Your task to perform on an android device: change timer sound Image 0: 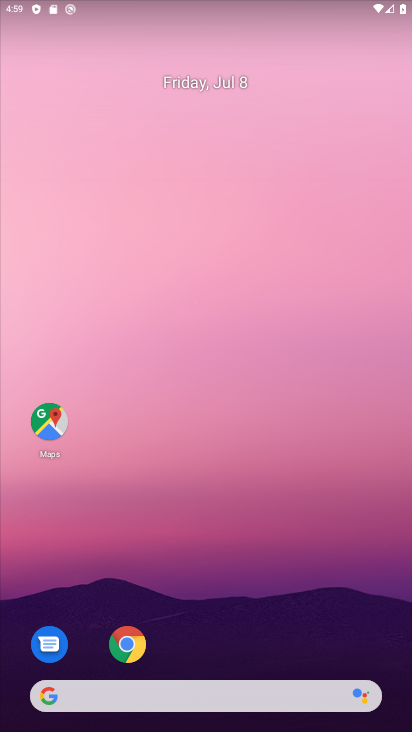
Step 0: press home button
Your task to perform on an android device: change timer sound Image 1: 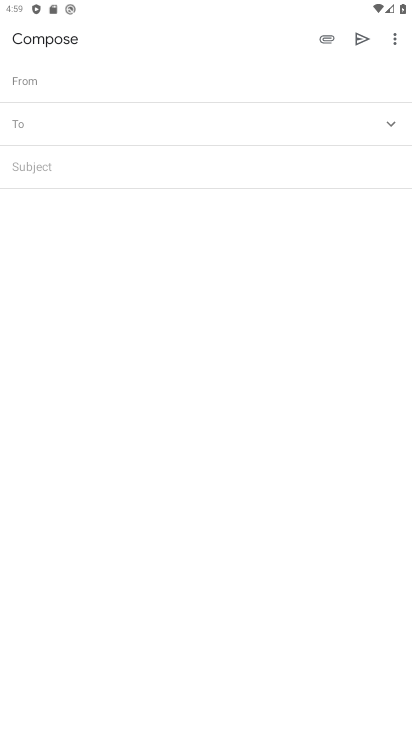
Step 1: click (259, 93)
Your task to perform on an android device: change timer sound Image 2: 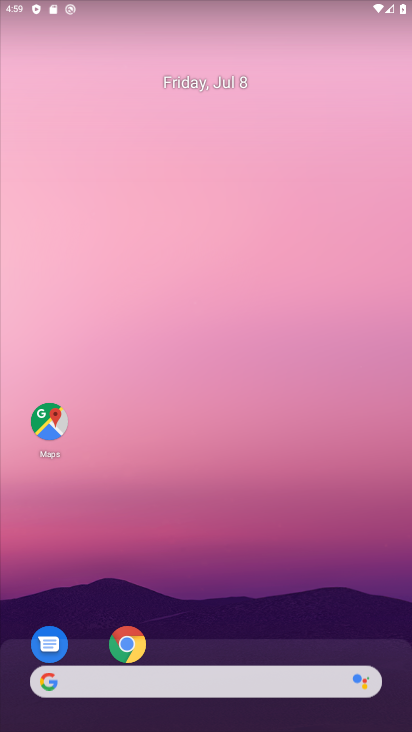
Step 2: drag from (202, 564) to (242, 17)
Your task to perform on an android device: change timer sound Image 3: 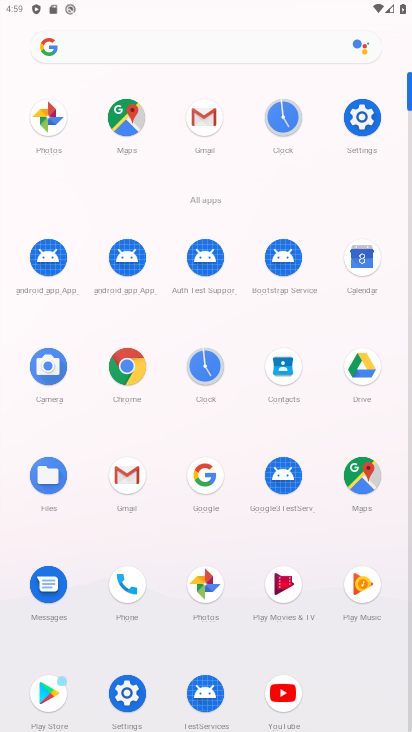
Step 3: drag from (200, 623) to (246, 115)
Your task to perform on an android device: change timer sound Image 4: 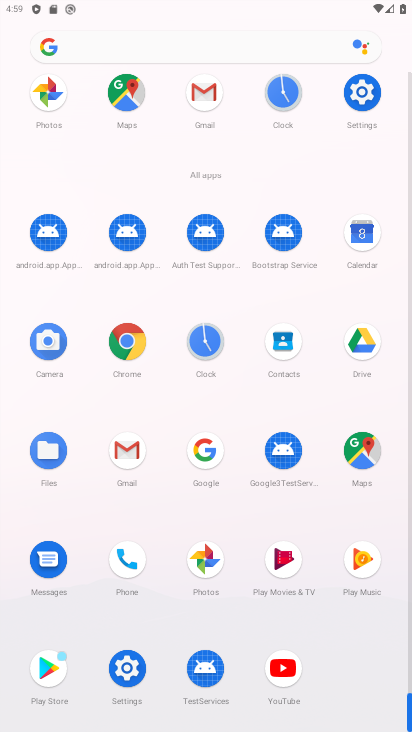
Step 4: click (121, 672)
Your task to perform on an android device: change timer sound Image 5: 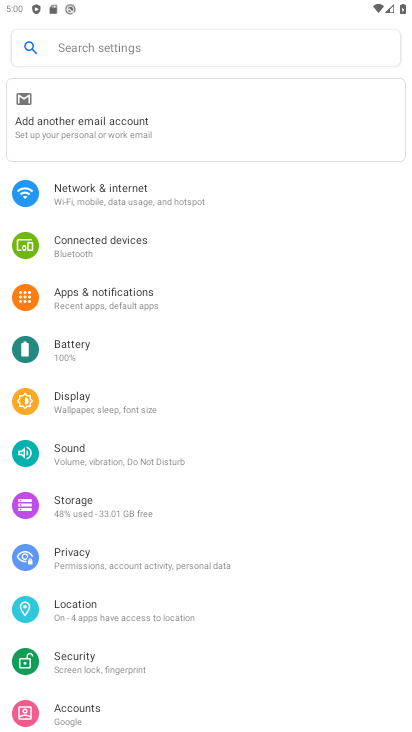
Step 5: click (211, 48)
Your task to perform on an android device: change timer sound Image 6: 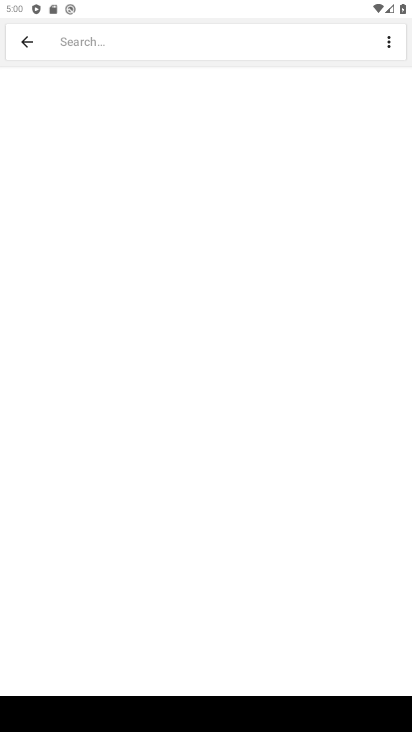
Step 6: type "timer sound"
Your task to perform on an android device: change timer sound Image 7: 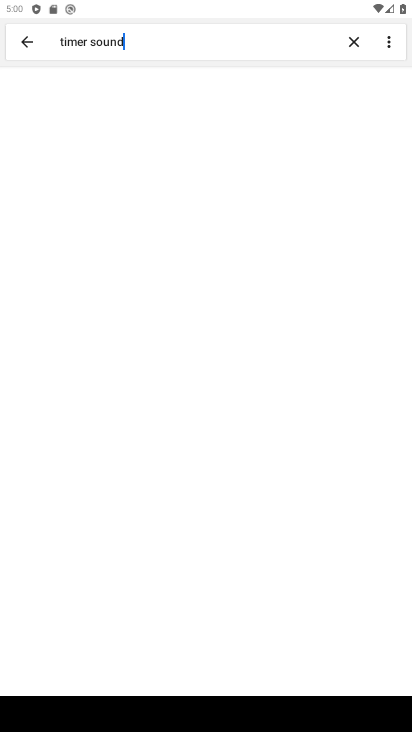
Step 7: press enter
Your task to perform on an android device: change timer sound Image 8: 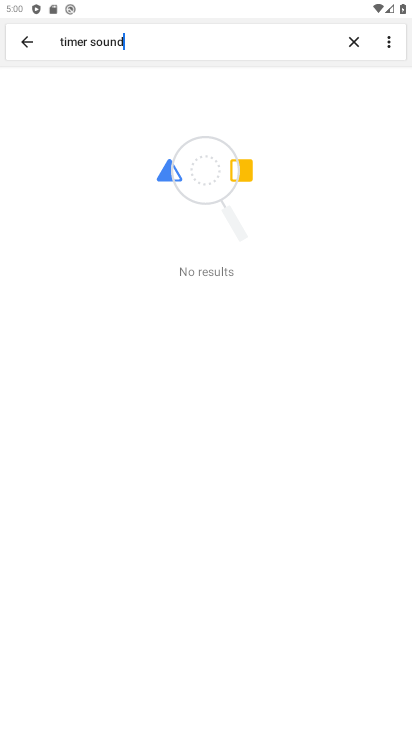
Step 8: press home button
Your task to perform on an android device: change timer sound Image 9: 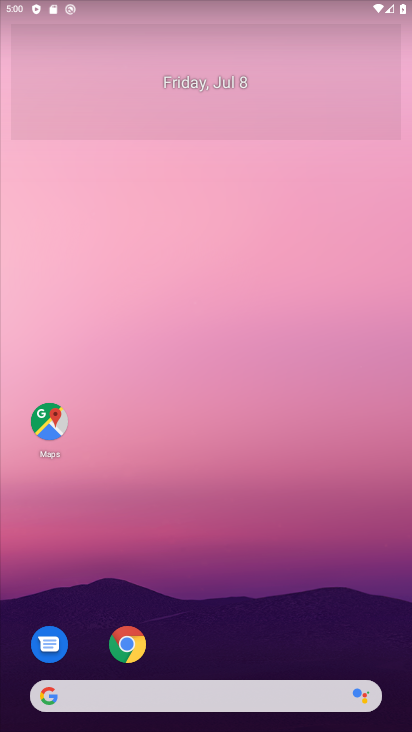
Step 9: drag from (278, 191) to (308, 68)
Your task to perform on an android device: change timer sound Image 10: 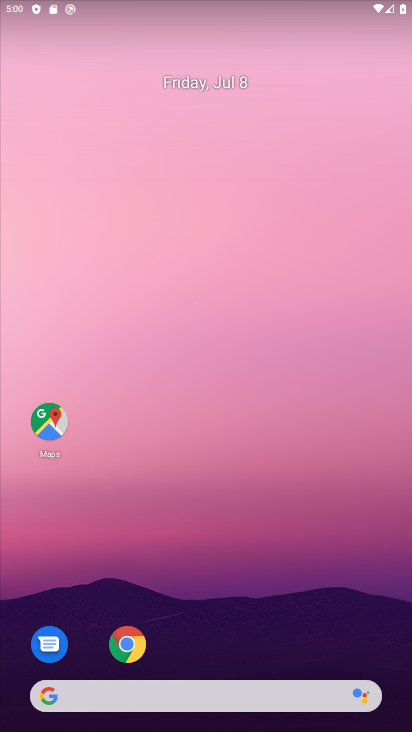
Step 10: click (219, 65)
Your task to perform on an android device: change timer sound Image 11: 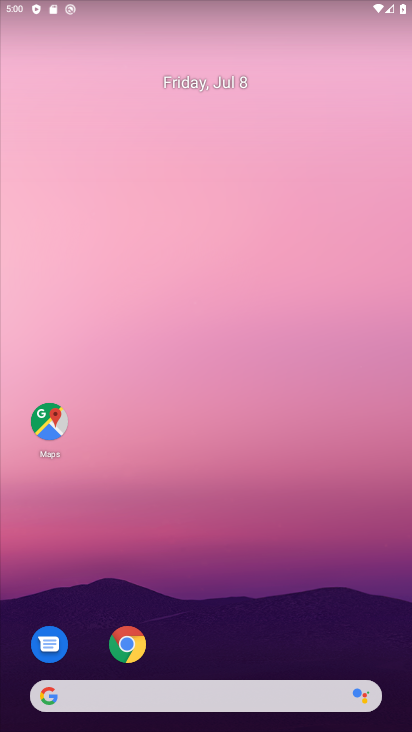
Step 11: drag from (233, 644) to (256, 3)
Your task to perform on an android device: change timer sound Image 12: 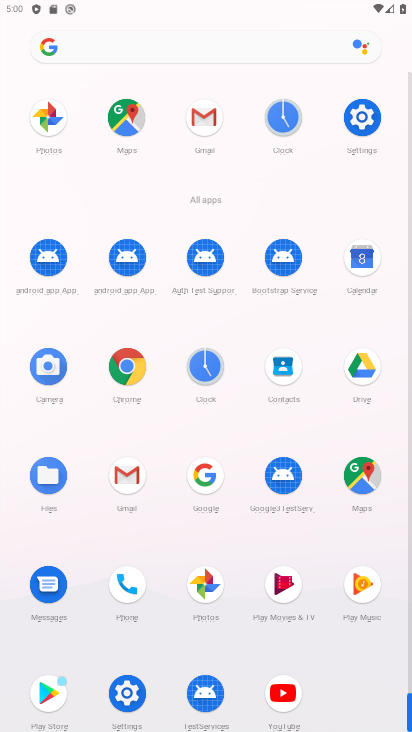
Step 12: click (281, 111)
Your task to perform on an android device: change timer sound Image 13: 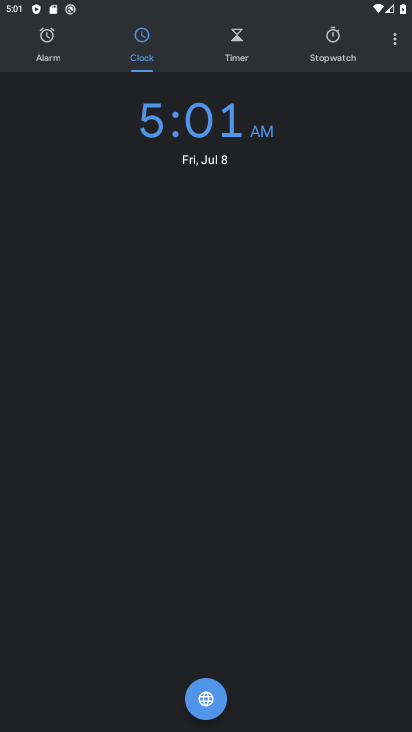
Step 13: click (215, 44)
Your task to perform on an android device: change timer sound Image 14: 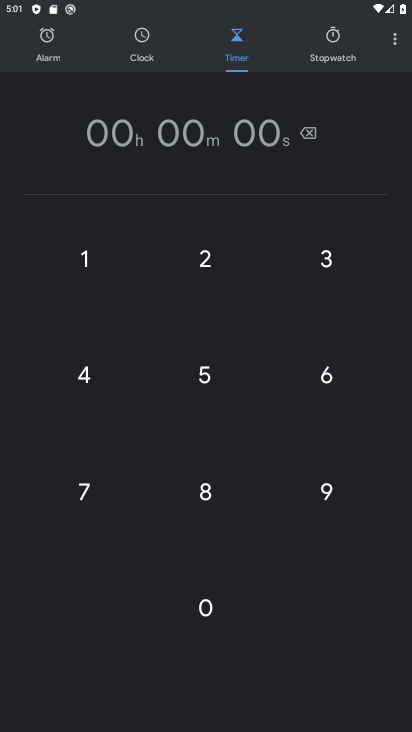
Step 14: click (386, 33)
Your task to perform on an android device: change timer sound Image 15: 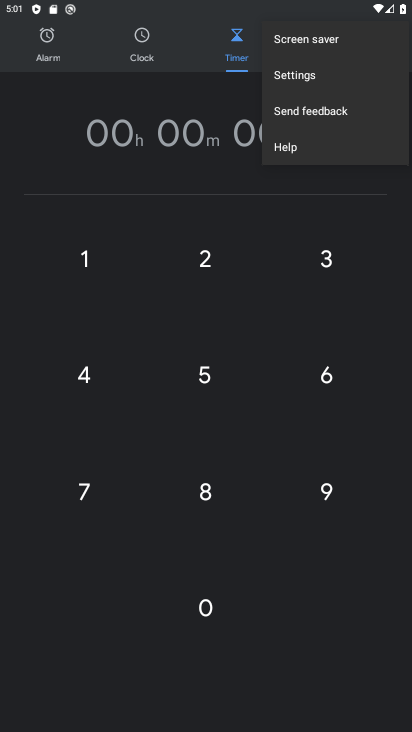
Step 15: click (343, 79)
Your task to perform on an android device: change timer sound Image 16: 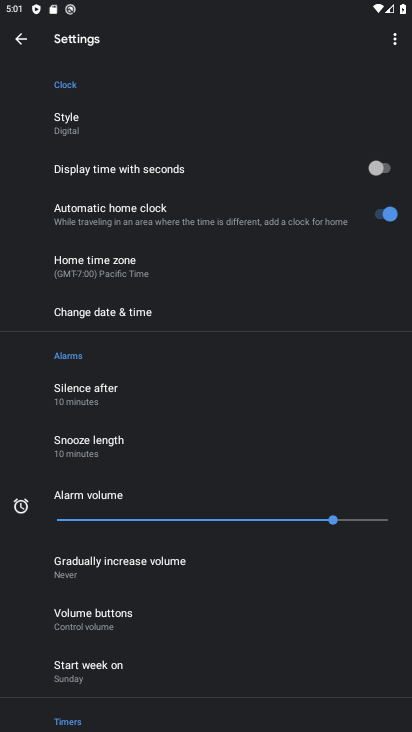
Step 16: drag from (252, 611) to (261, 186)
Your task to perform on an android device: change timer sound Image 17: 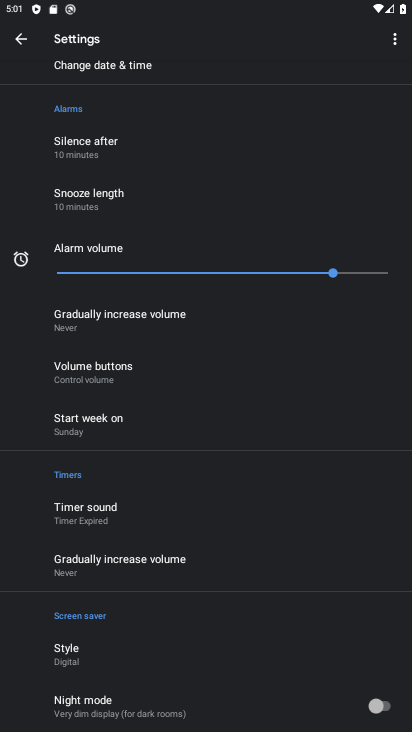
Step 17: click (100, 523)
Your task to perform on an android device: change timer sound Image 18: 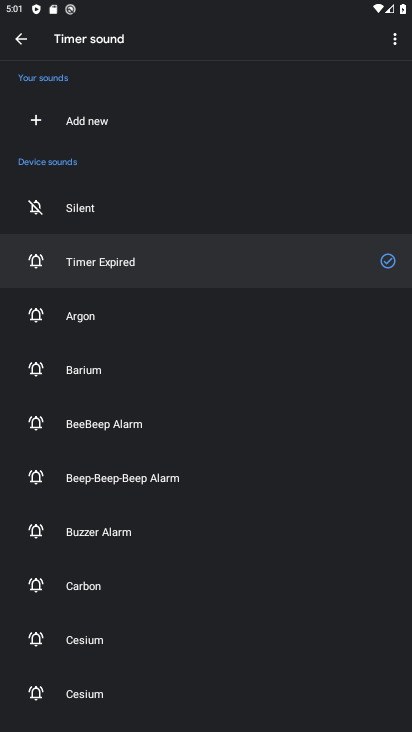
Step 18: click (104, 322)
Your task to perform on an android device: change timer sound Image 19: 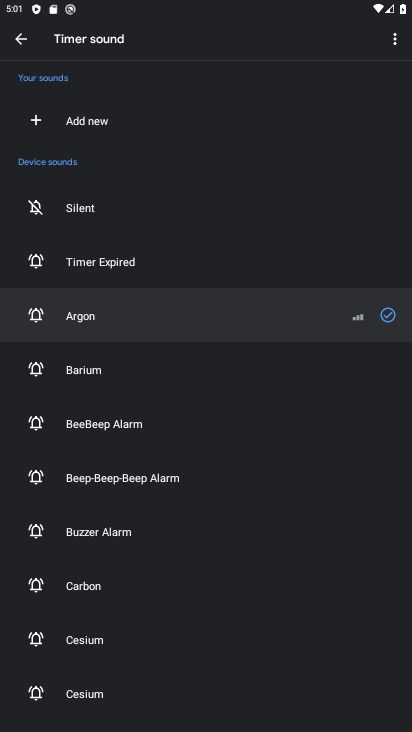
Step 19: click (16, 47)
Your task to perform on an android device: change timer sound Image 20: 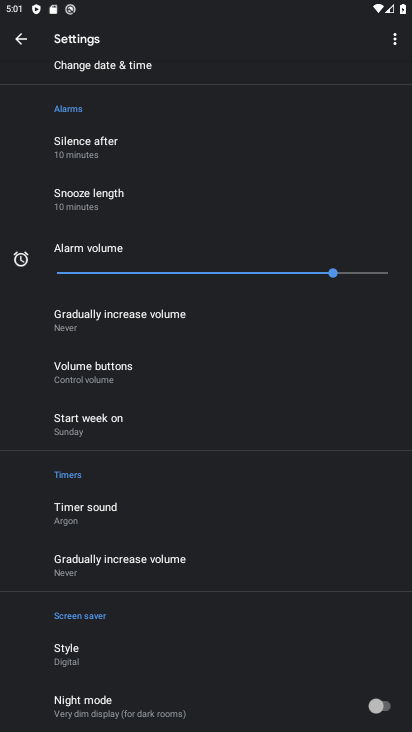
Step 20: task complete